Your task to perform on an android device: set an alarm Image 0: 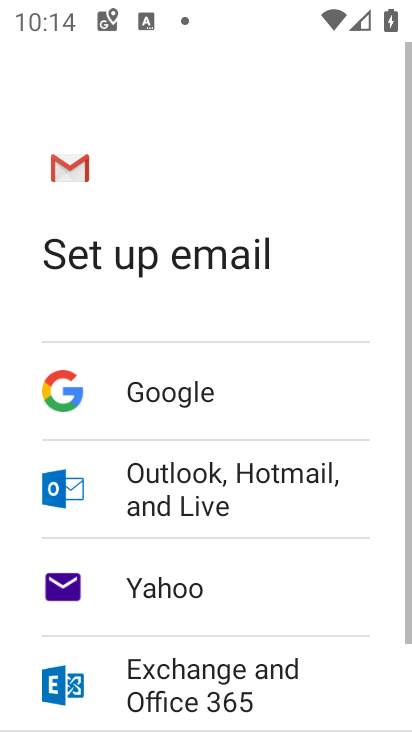
Step 0: press home button
Your task to perform on an android device: set an alarm Image 1: 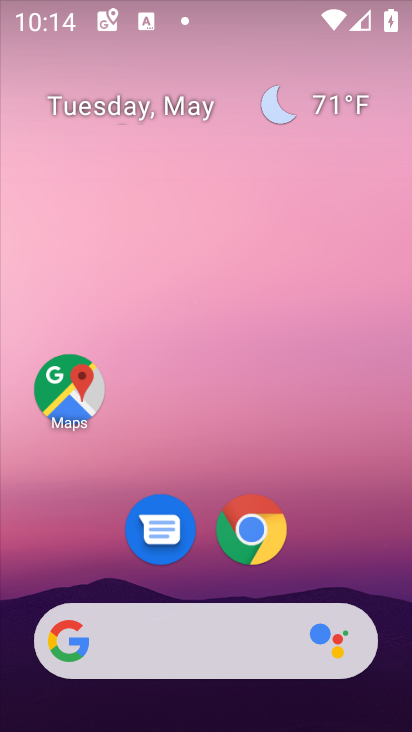
Step 1: drag from (297, 675) to (258, 329)
Your task to perform on an android device: set an alarm Image 2: 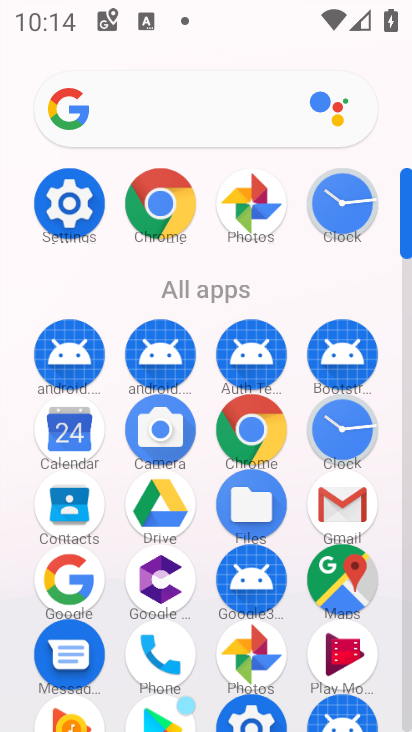
Step 2: drag from (232, 529) to (249, 323)
Your task to perform on an android device: set an alarm Image 3: 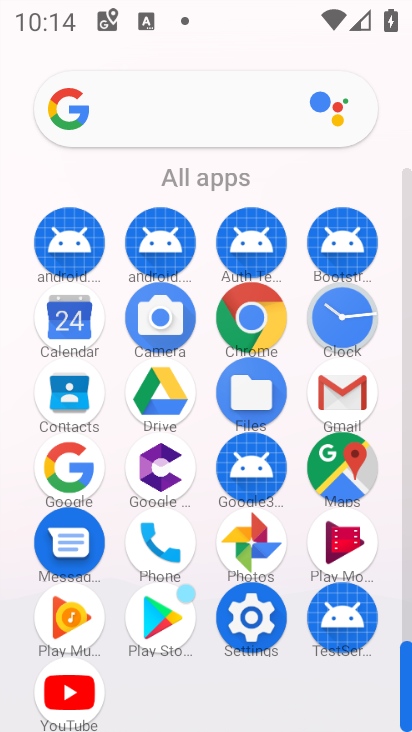
Step 3: click (250, 614)
Your task to perform on an android device: set an alarm Image 4: 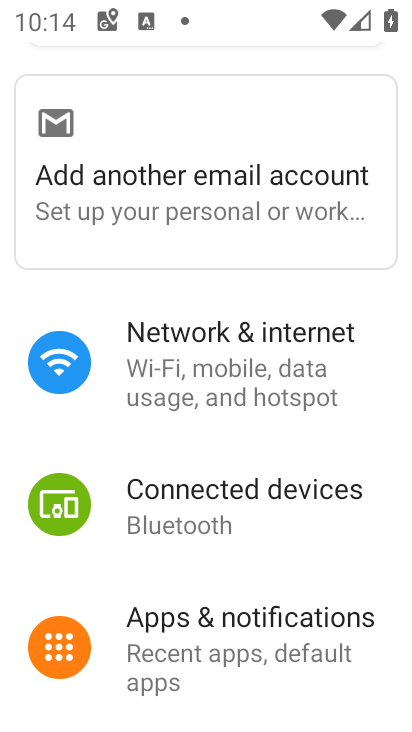
Step 4: drag from (245, 609) to (250, 509)
Your task to perform on an android device: set an alarm Image 5: 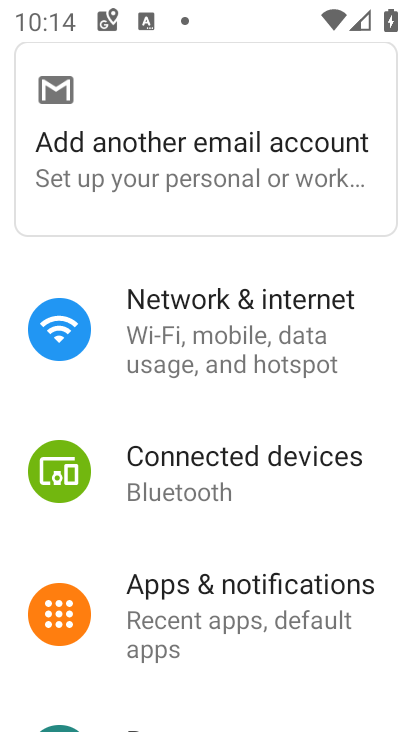
Step 5: drag from (257, 644) to (276, 336)
Your task to perform on an android device: set an alarm Image 6: 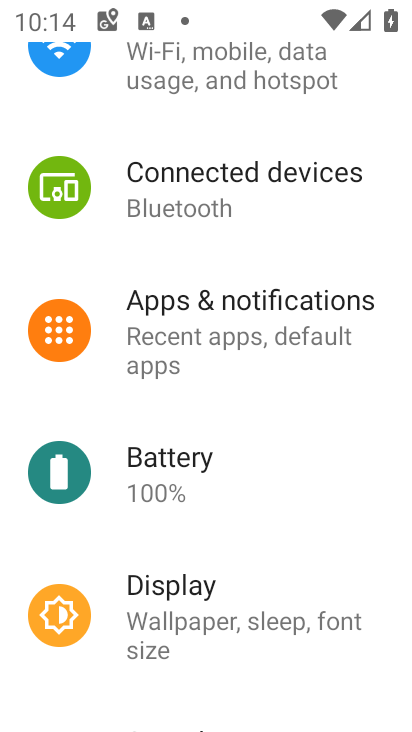
Step 6: press home button
Your task to perform on an android device: set an alarm Image 7: 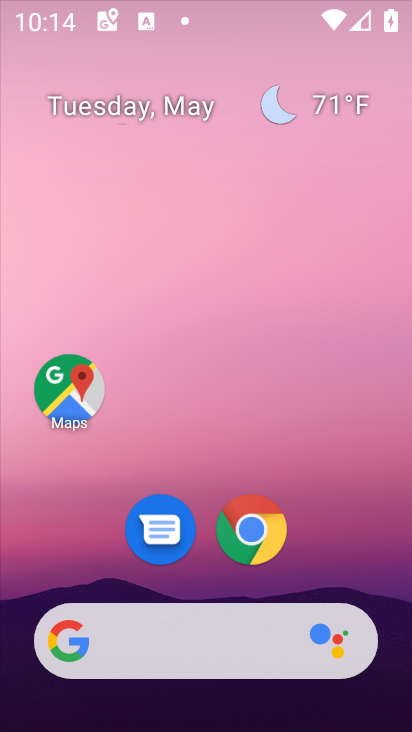
Step 7: drag from (192, 578) to (247, 297)
Your task to perform on an android device: set an alarm Image 8: 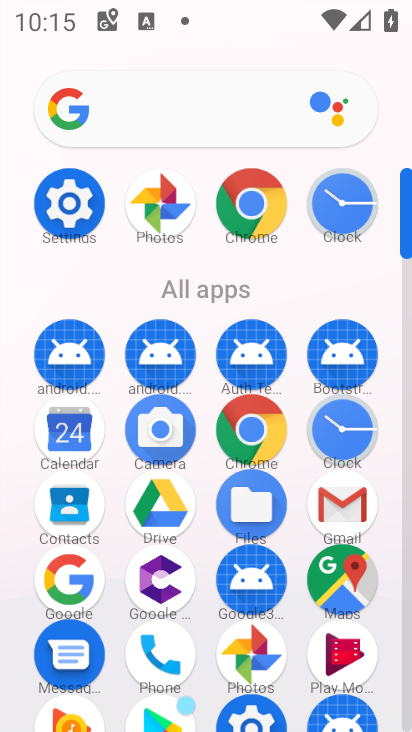
Step 8: click (350, 435)
Your task to perform on an android device: set an alarm Image 9: 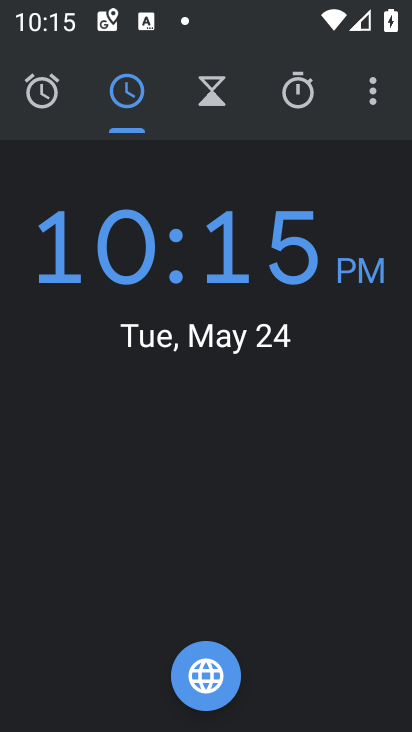
Step 9: click (40, 90)
Your task to perform on an android device: set an alarm Image 10: 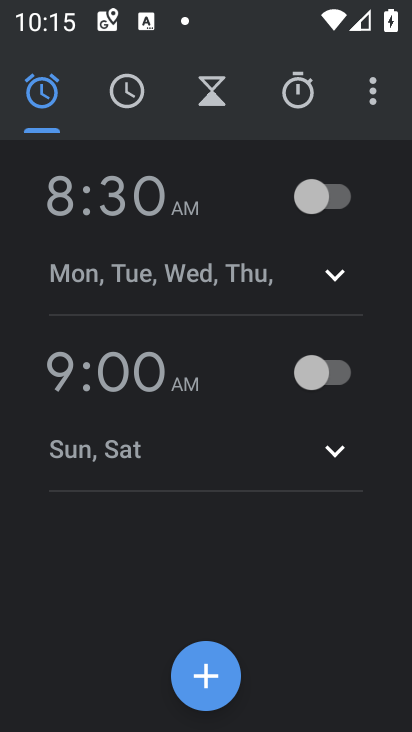
Step 10: click (210, 694)
Your task to perform on an android device: set an alarm Image 11: 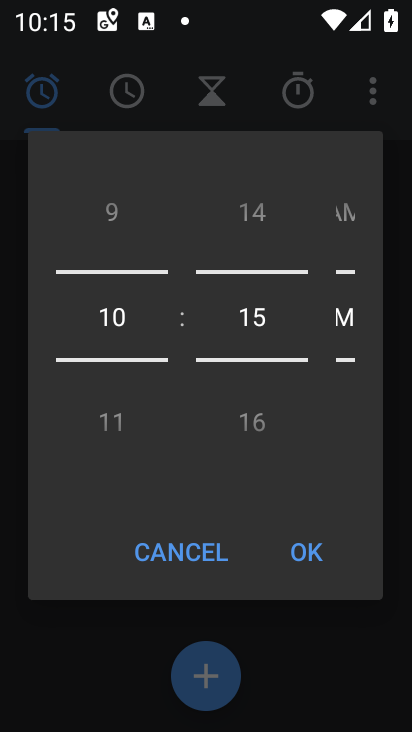
Step 11: click (306, 560)
Your task to perform on an android device: set an alarm Image 12: 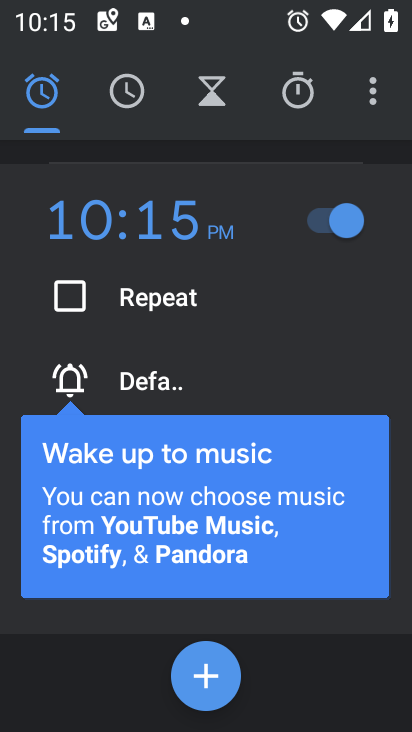
Step 12: task complete